Your task to perform on an android device: Open display settings Image 0: 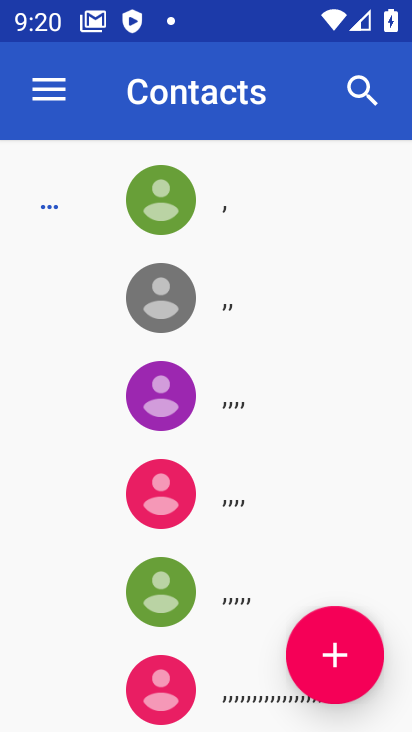
Step 0: press home button
Your task to perform on an android device: Open display settings Image 1: 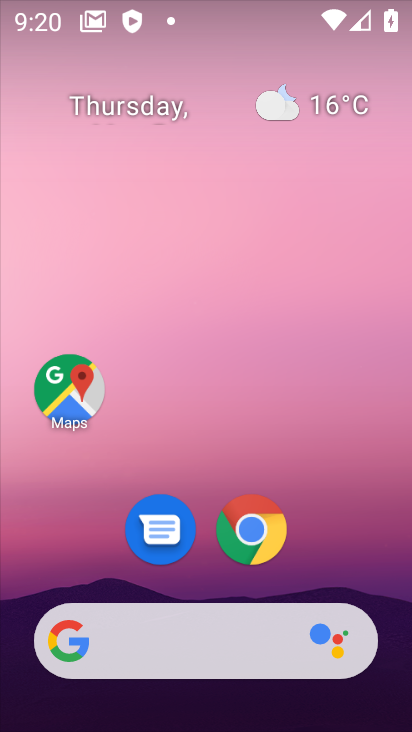
Step 1: click (364, 153)
Your task to perform on an android device: Open display settings Image 2: 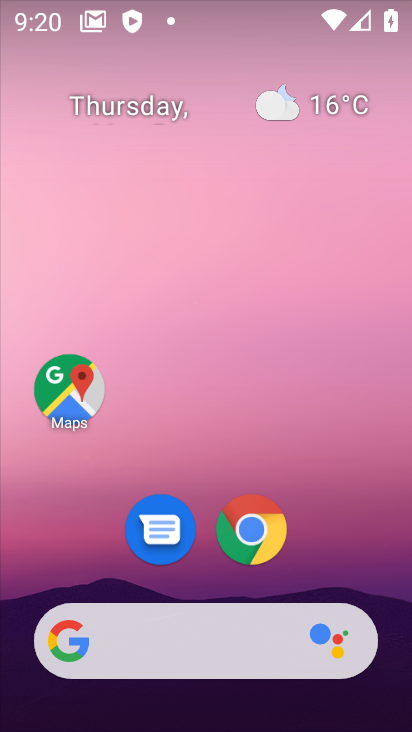
Step 2: drag from (398, 631) to (388, 243)
Your task to perform on an android device: Open display settings Image 3: 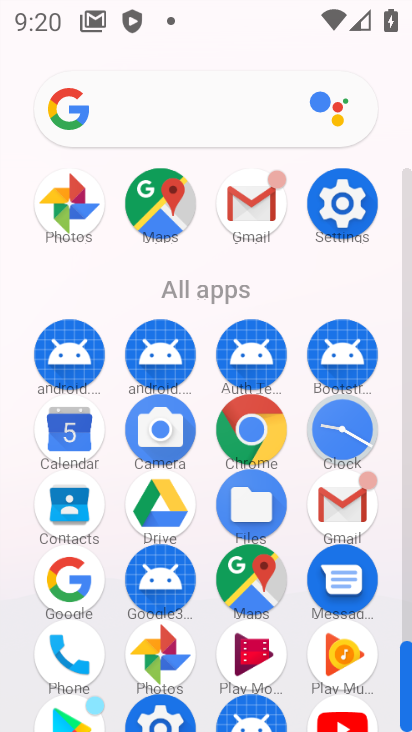
Step 3: click (345, 203)
Your task to perform on an android device: Open display settings Image 4: 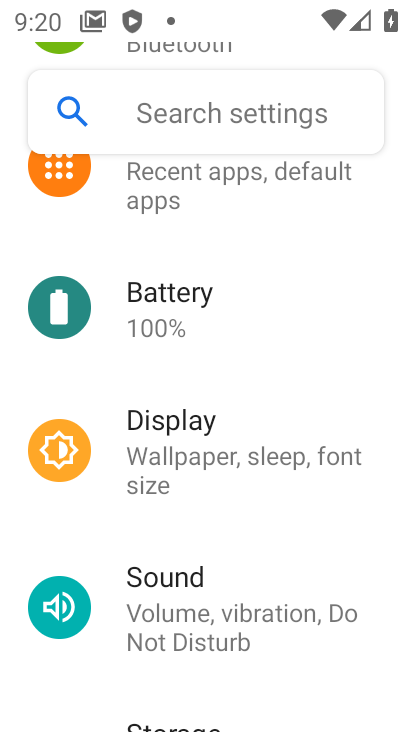
Step 4: click (213, 430)
Your task to perform on an android device: Open display settings Image 5: 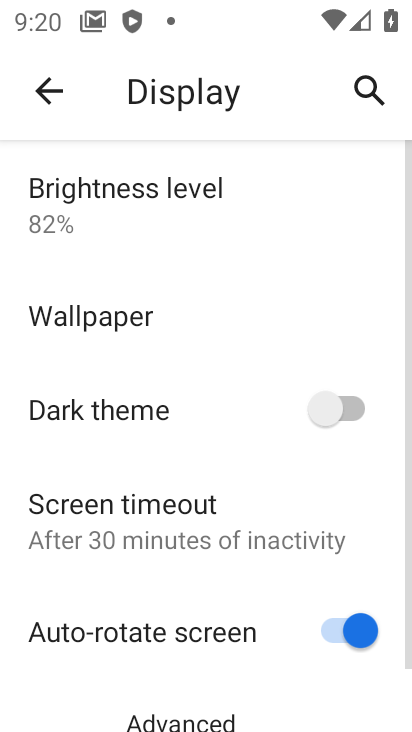
Step 5: task complete